Your task to perform on an android device: When is my next meeting? Image 0: 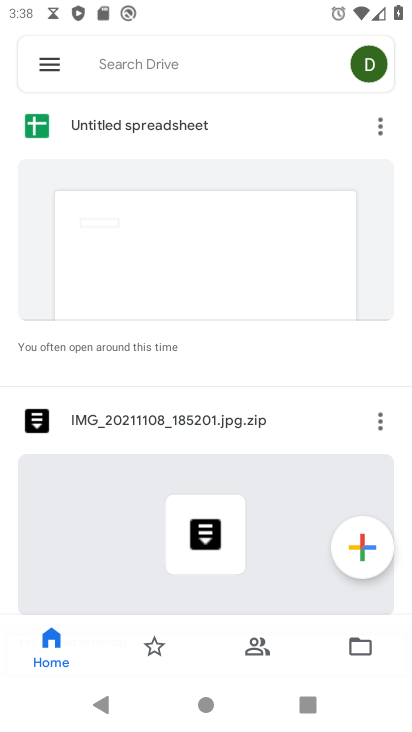
Step 0: press back button
Your task to perform on an android device: When is my next meeting? Image 1: 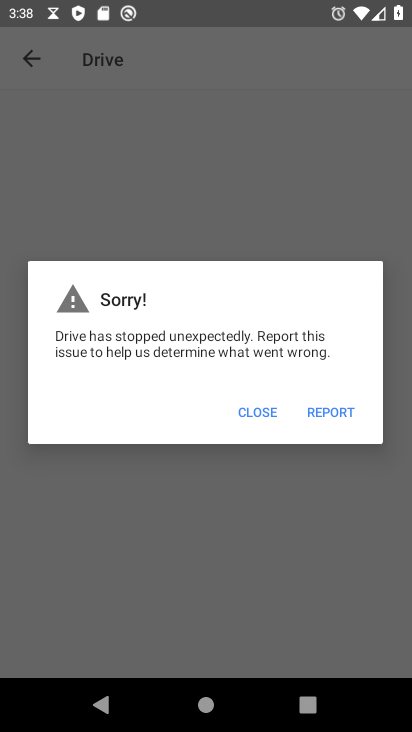
Step 1: click (250, 412)
Your task to perform on an android device: When is my next meeting? Image 2: 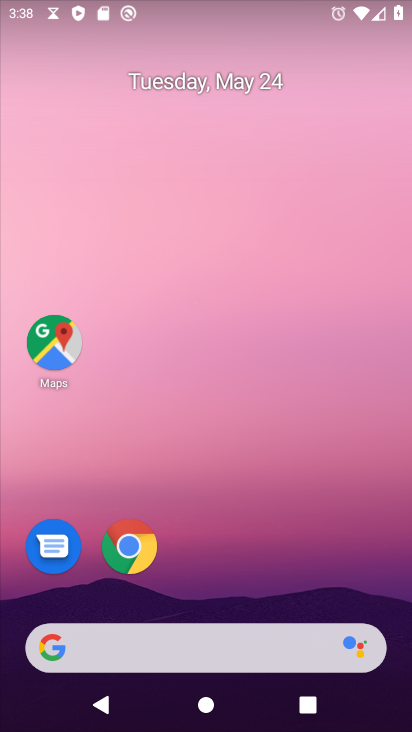
Step 2: drag from (219, 545) to (229, 95)
Your task to perform on an android device: When is my next meeting? Image 3: 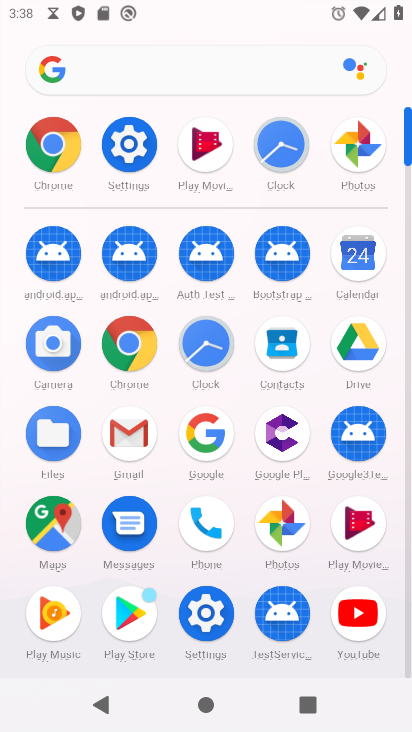
Step 3: click (349, 247)
Your task to perform on an android device: When is my next meeting? Image 4: 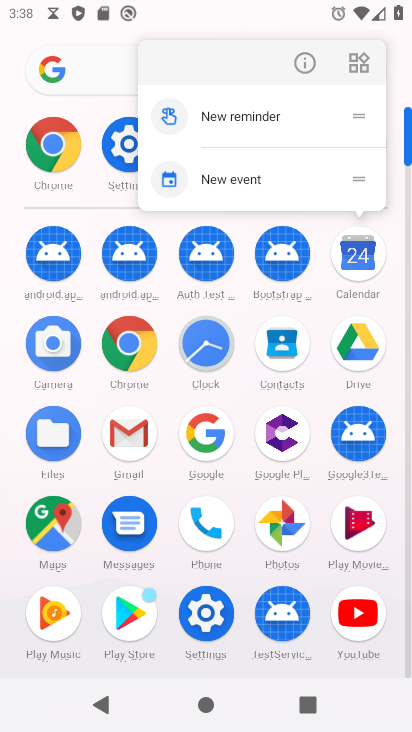
Step 4: click (349, 252)
Your task to perform on an android device: When is my next meeting? Image 5: 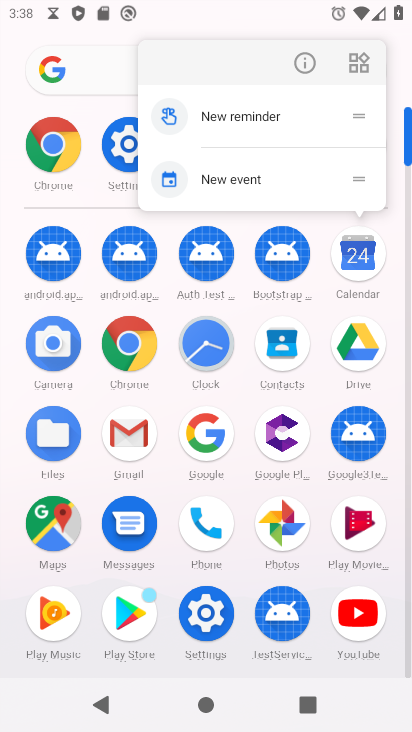
Step 5: click (347, 242)
Your task to perform on an android device: When is my next meeting? Image 6: 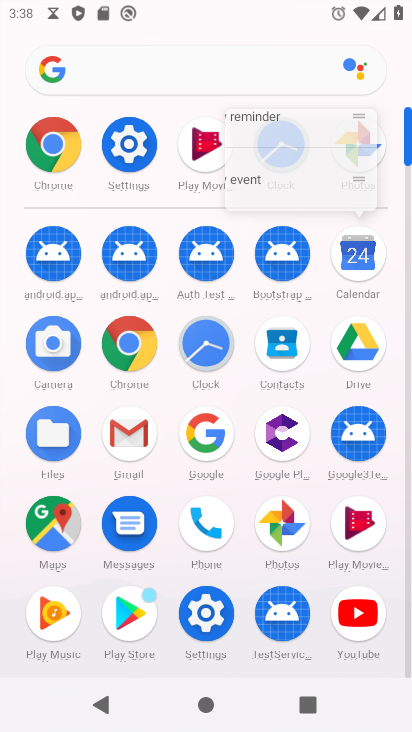
Step 6: click (346, 243)
Your task to perform on an android device: When is my next meeting? Image 7: 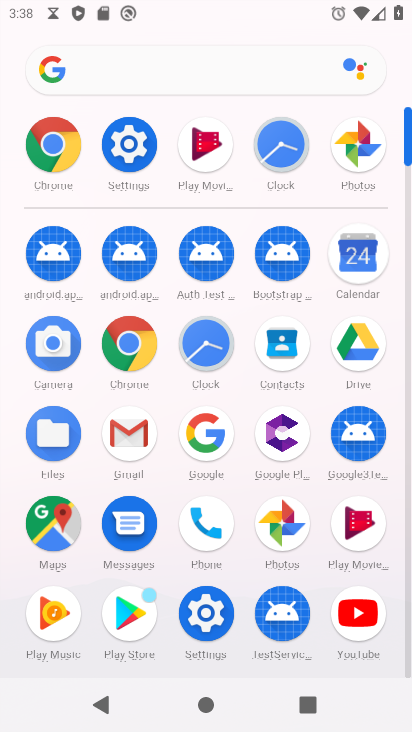
Step 7: click (346, 243)
Your task to perform on an android device: When is my next meeting? Image 8: 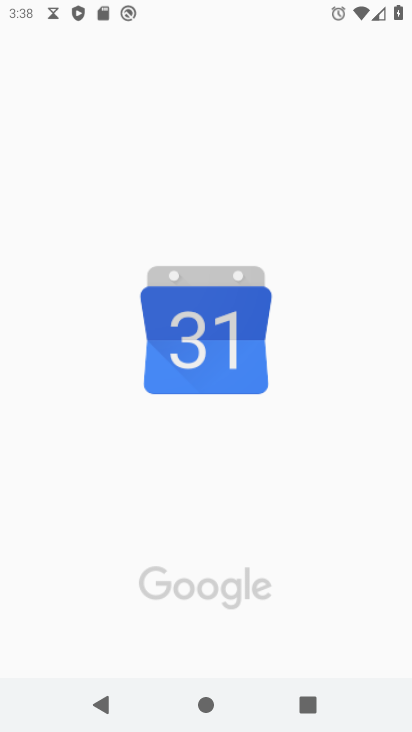
Step 8: click (350, 251)
Your task to perform on an android device: When is my next meeting? Image 9: 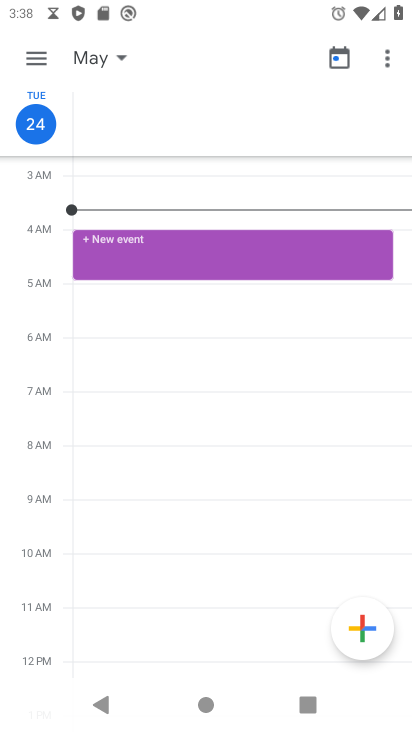
Step 9: click (41, 59)
Your task to perform on an android device: When is my next meeting? Image 10: 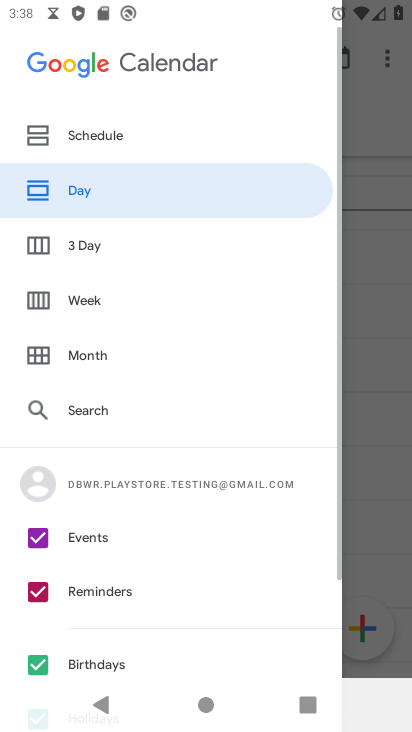
Step 10: click (76, 193)
Your task to perform on an android device: When is my next meeting? Image 11: 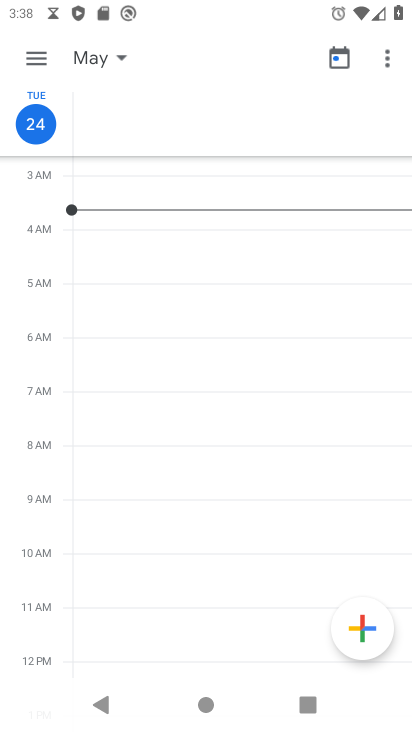
Step 11: click (41, 61)
Your task to perform on an android device: When is my next meeting? Image 12: 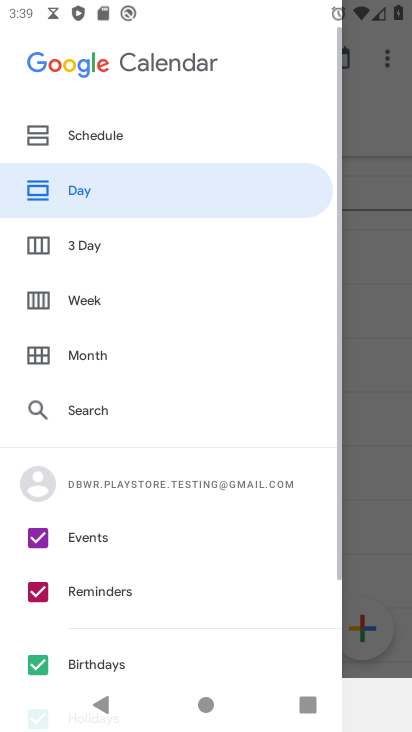
Step 12: click (78, 134)
Your task to perform on an android device: When is my next meeting? Image 13: 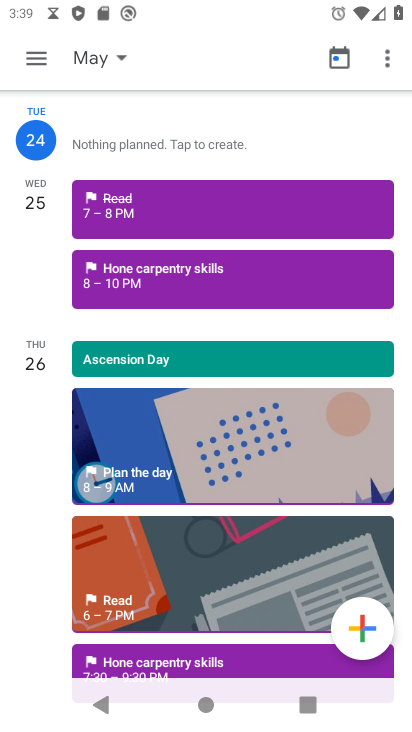
Step 13: drag from (204, 553) to (308, 224)
Your task to perform on an android device: When is my next meeting? Image 14: 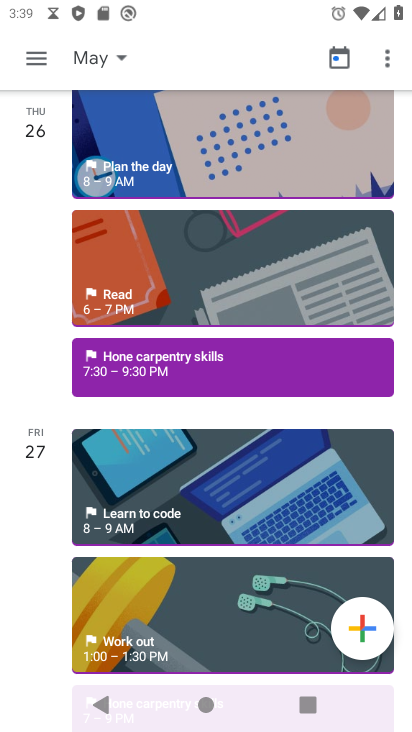
Step 14: drag from (188, 588) to (338, 270)
Your task to perform on an android device: When is my next meeting? Image 15: 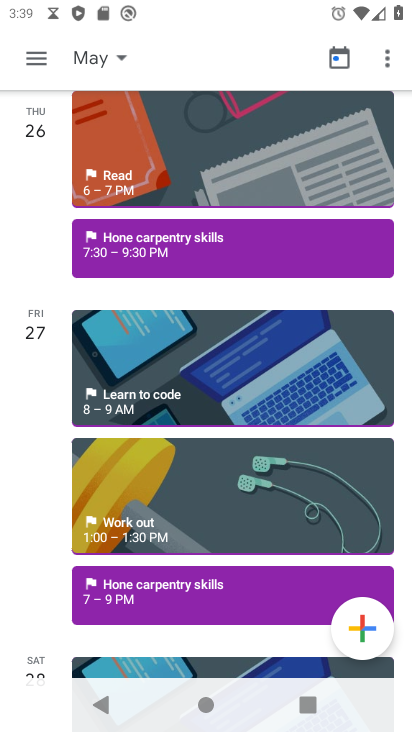
Step 15: drag from (216, 618) to (240, 290)
Your task to perform on an android device: When is my next meeting? Image 16: 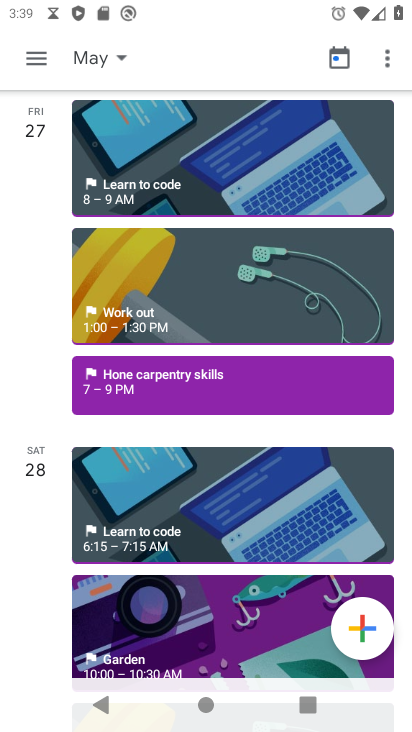
Step 16: drag from (198, 478) to (197, 225)
Your task to perform on an android device: When is my next meeting? Image 17: 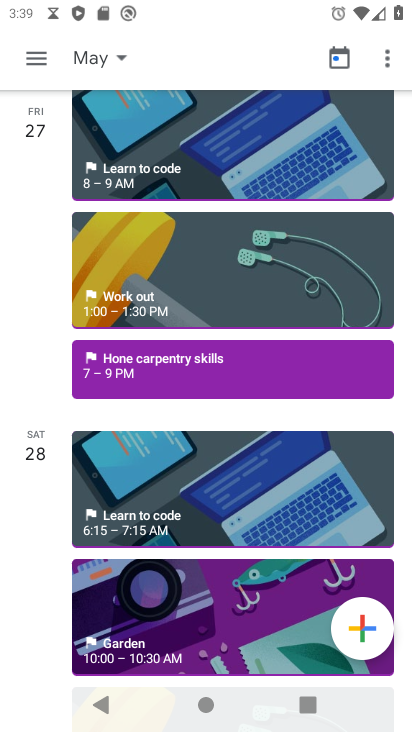
Step 17: drag from (113, 319) to (126, 155)
Your task to perform on an android device: When is my next meeting? Image 18: 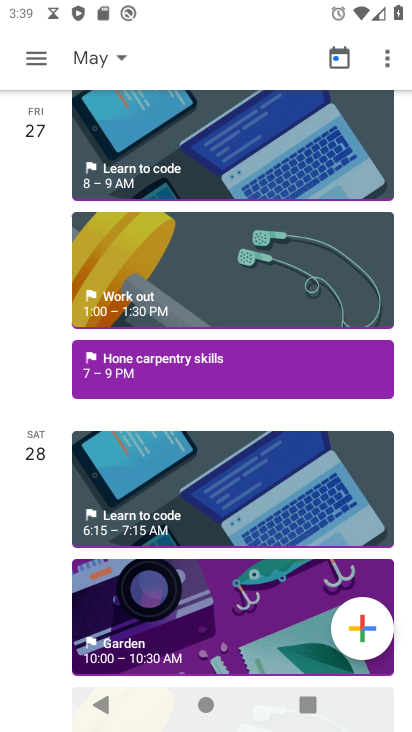
Step 18: drag from (147, 587) to (257, 189)
Your task to perform on an android device: When is my next meeting? Image 19: 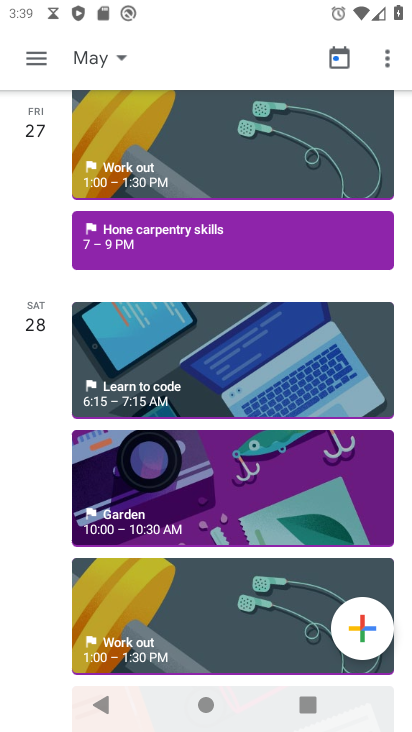
Step 19: click (224, 264)
Your task to perform on an android device: When is my next meeting? Image 20: 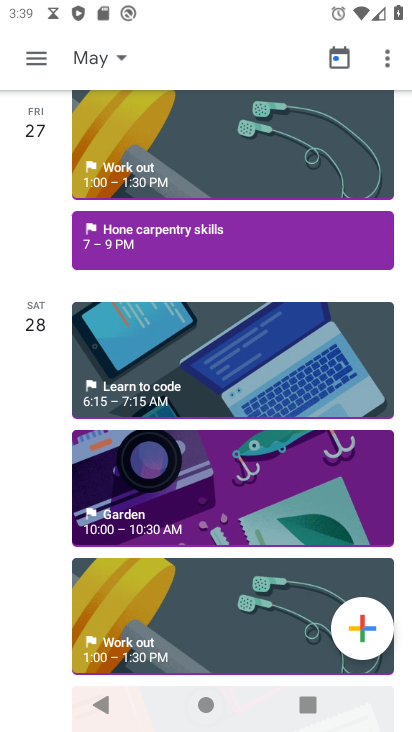
Step 20: task complete